Your task to perform on an android device: toggle wifi Image 0: 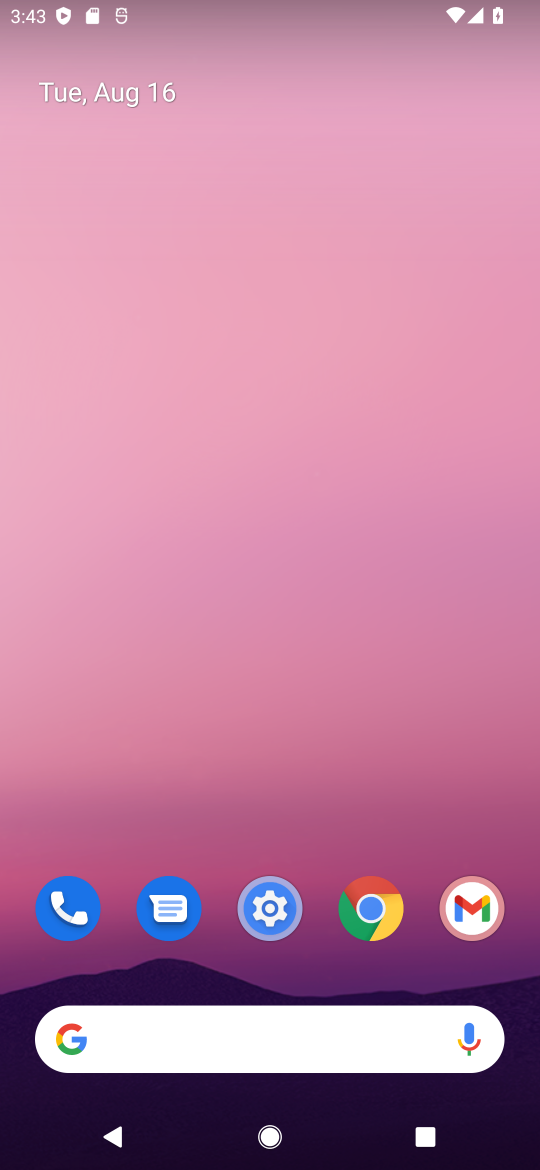
Step 0: click (263, 905)
Your task to perform on an android device: toggle wifi Image 1: 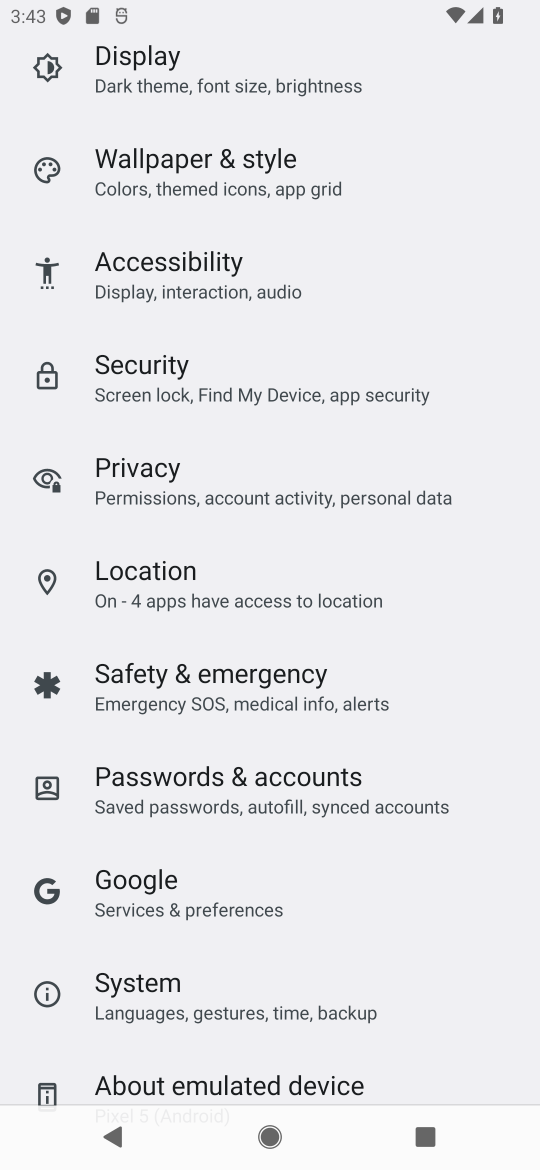
Step 1: drag from (201, 205) to (255, 1054)
Your task to perform on an android device: toggle wifi Image 2: 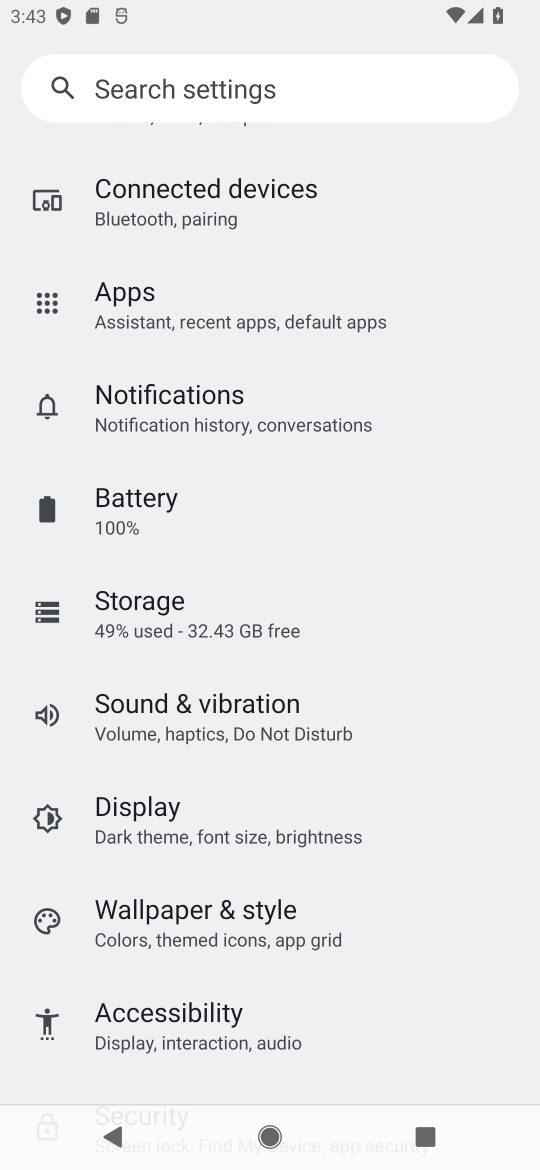
Step 2: drag from (193, 263) to (229, 972)
Your task to perform on an android device: toggle wifi Image 3: 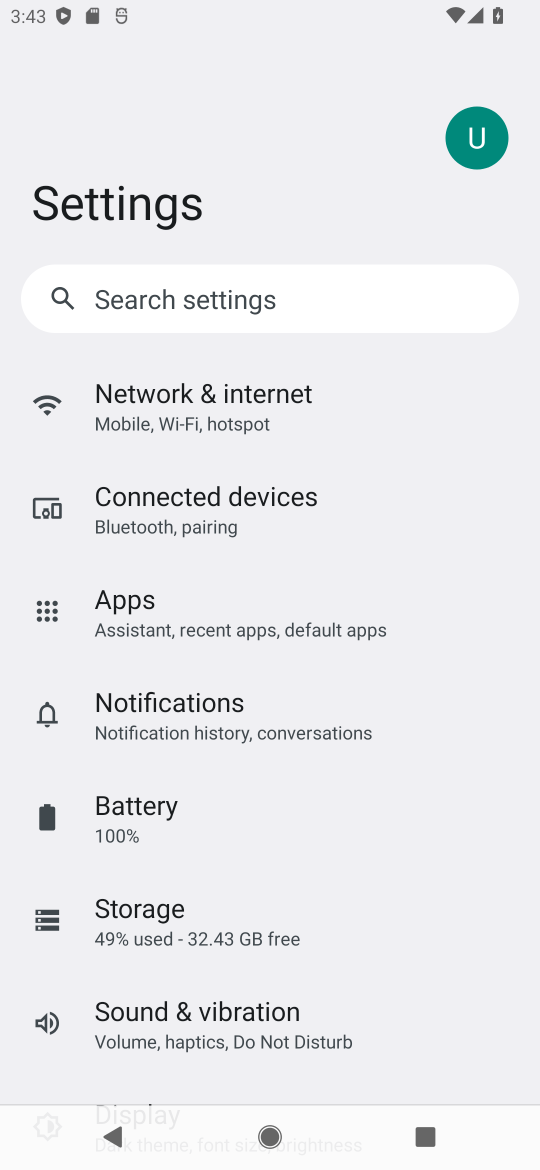
Step 3: click (222, 410)
Your task to perform on an android device: toggle wifi Image 4: 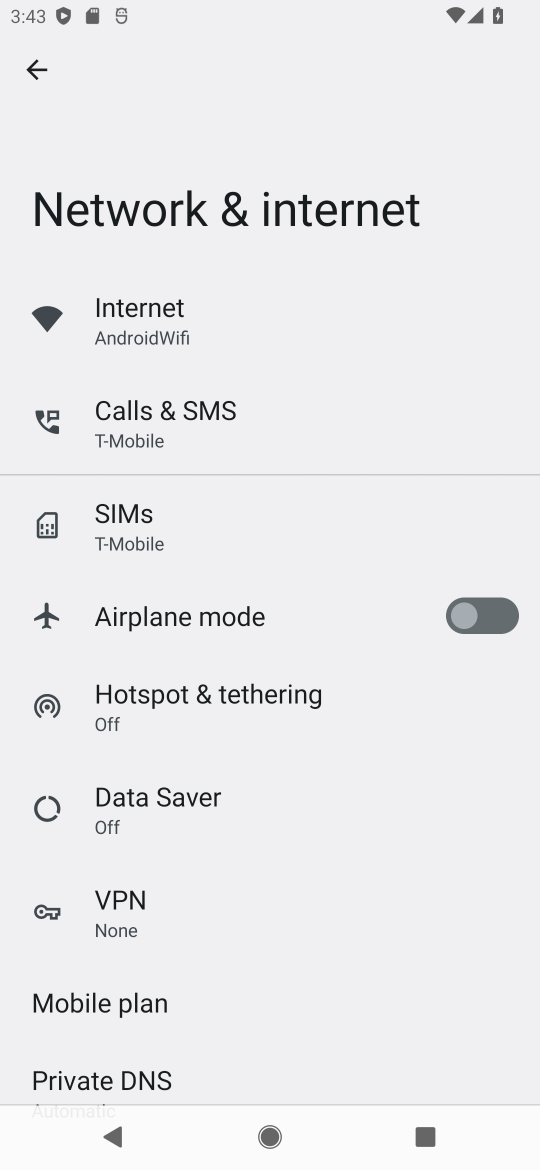
Step 4: task complete